Your task to perform on an android device: delete browsing data in the chrome app Image 0: 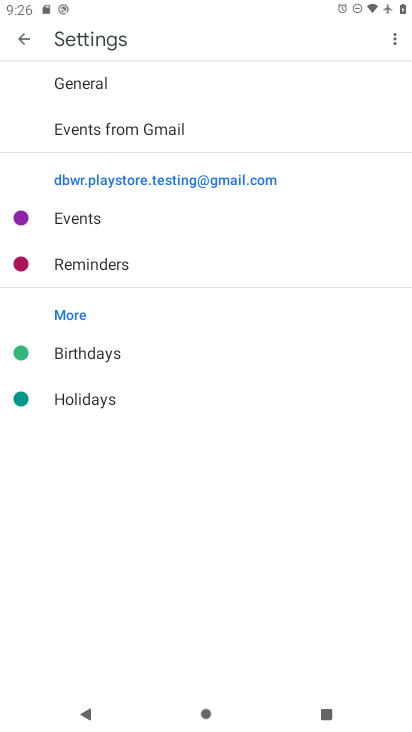
Step 0: press home button
Your task to perform on an android device: delete browsing data in the chrome app Image 1: 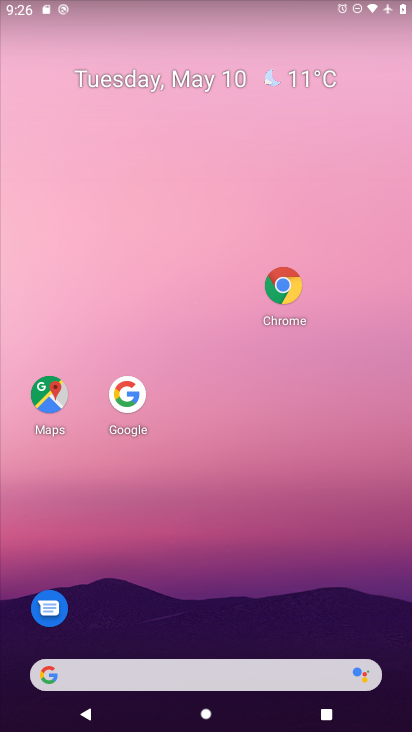
Step 1: drag from (190, 668) to (349, 170)
Your task to perform on an android device: delete browsing data in the chrome app Image 2: 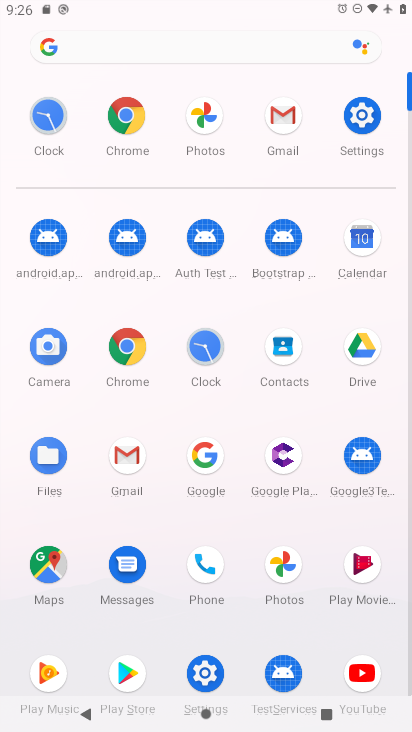
Step 2: click (129, 121)
Your task to perform on an android device: delete browsing data in the chrome app Image 3: 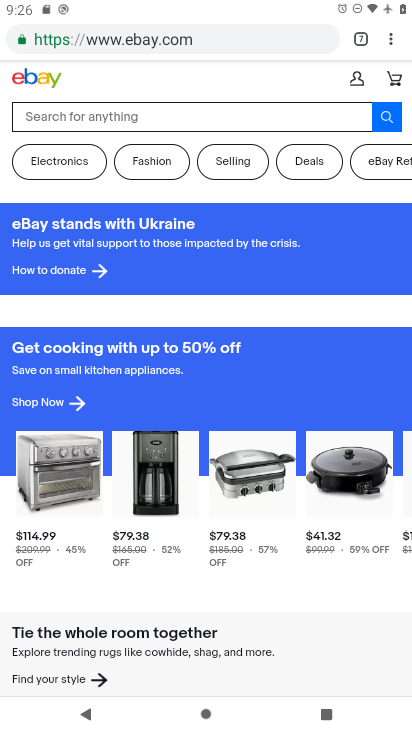
Step 3: drag from (386, 40) to (273, 473)
Your task to perform on an android device: delete browsing data in the chrome app Image 4: 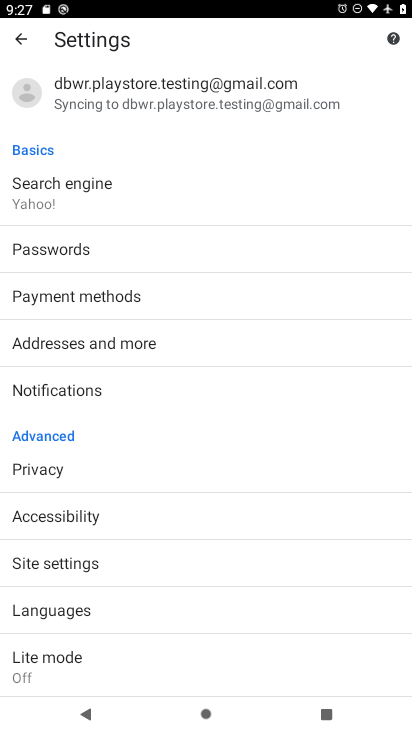
Step 4: click (49, 473)
Your task to perform on an android device: delete browsing data in the chrome app Image 5: 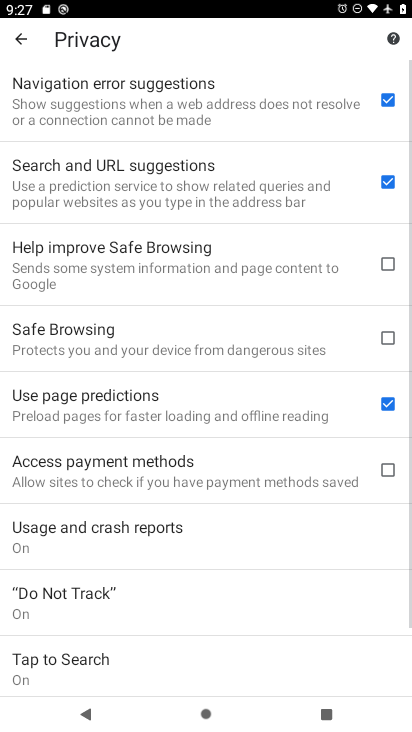
Step 5: drag from (102, 596) to (309, 127)
Your task to perform on an android device: delete browsing data in the chrome app Image 6: 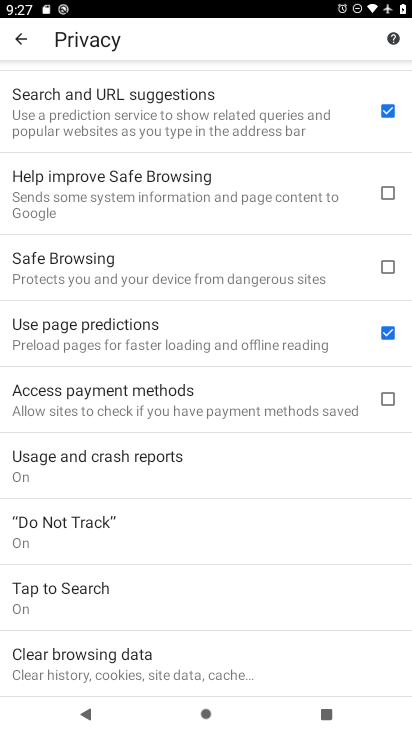
Step 6: click (138, 673)
Your task to perform on an android device: delete browsing data in the chrome app Image 7: 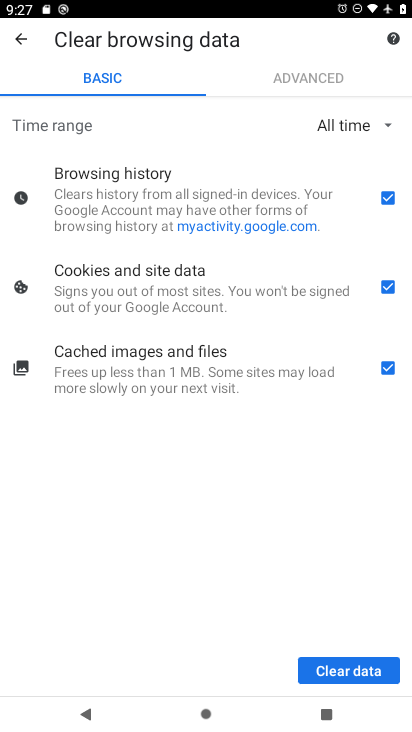
Step 7: click (342, 670)
Your task to perform on an android device: delete browsing data in the chrome app Image 8: 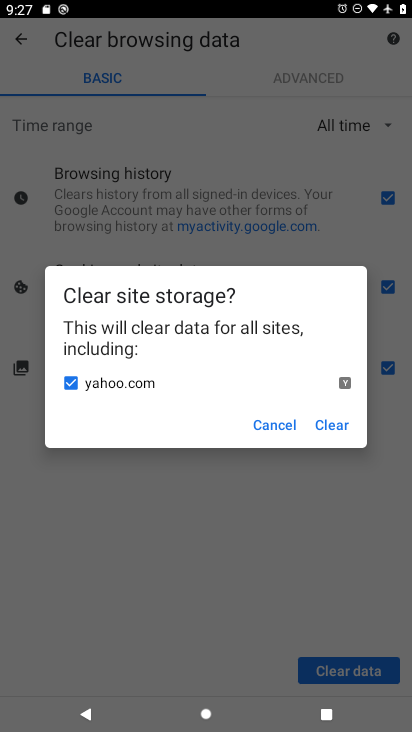
Step 8: click (332, 421)
Your task to perform on an android device: delete browsing data in the chrome app Image 9: 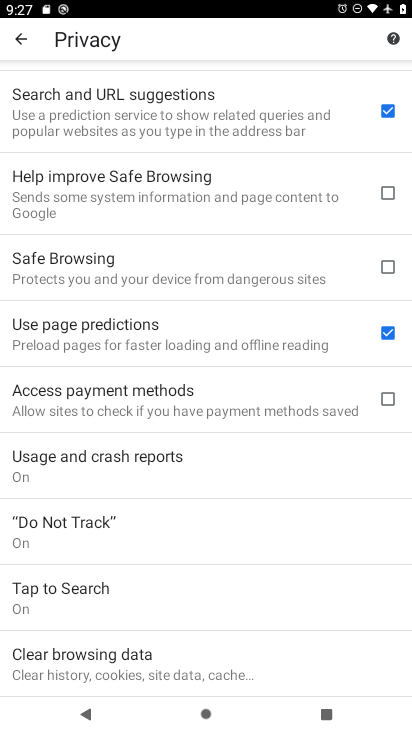
Step 9: task complete